Your task to perform on an android device: star an email in the gmail app Image 0: 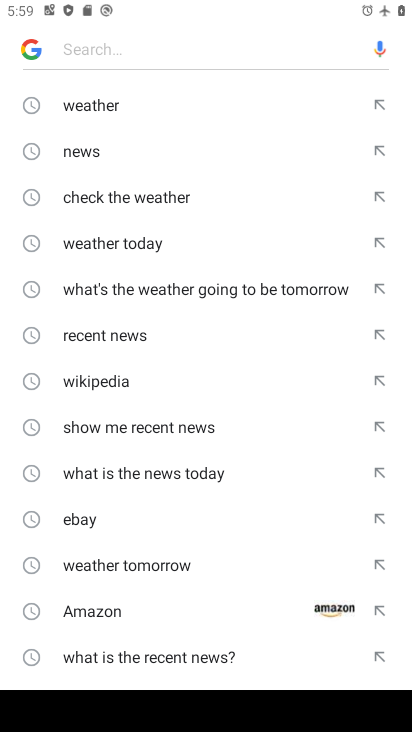
Step 0: press home button
Your task to perform on an android device: star an email in the gmail app Image 1: 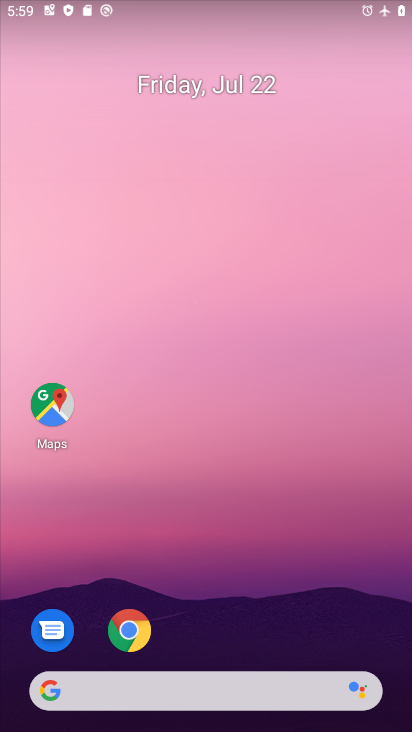
Step 1: drag from (284, 552) to (248, 138)
Your task to perform on an android device: star an email in the gmail app Image 2: 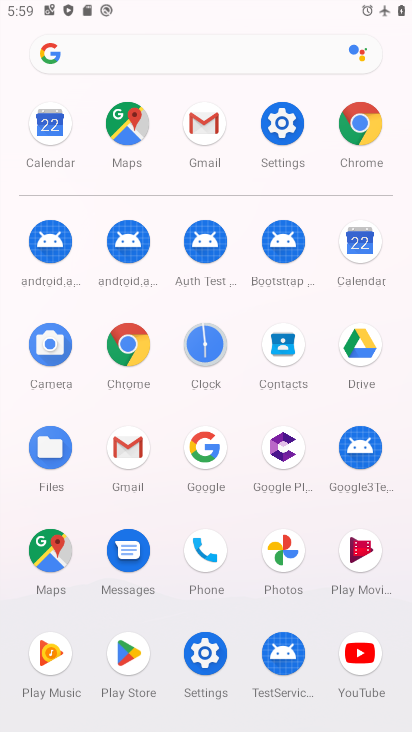
Step 2: click (129, 455)
Your task to perform on an android device: star an email in the gmail app Image 3: 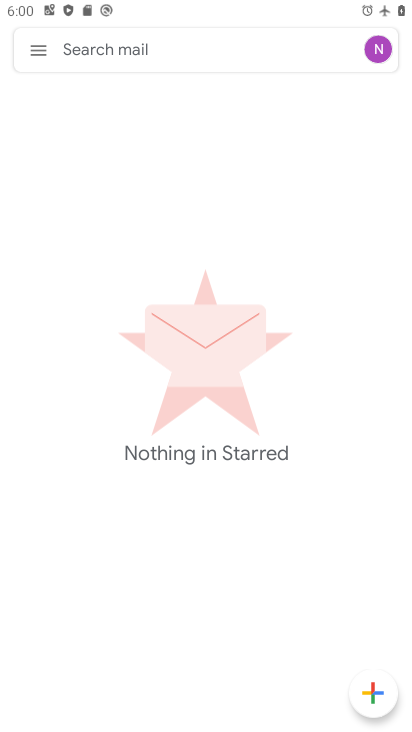
Step 3: task complete